Your task to perform on an android device: choose inbox layout in the gmail app Image 0: 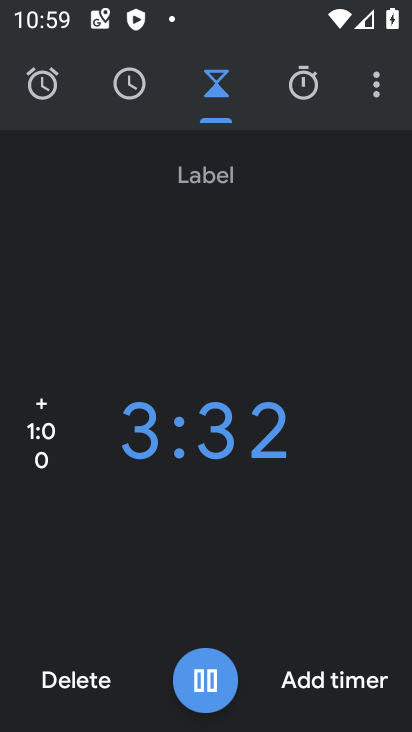
Step 0: press home button
Your task to perform on an android device: choose inbox layout in the gmail app Image 1: 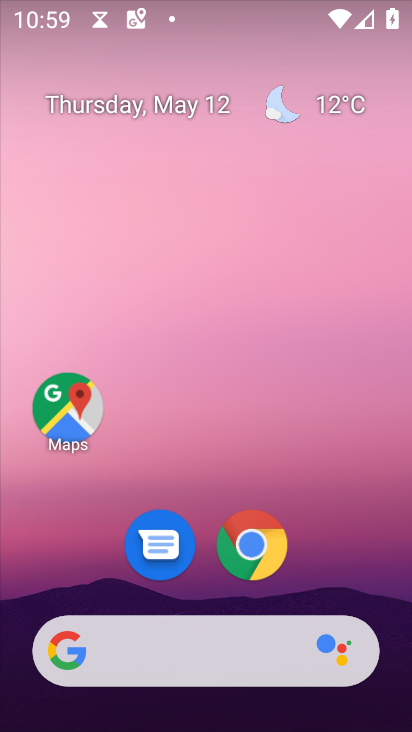
Step 1: drag from (205, 593) to (217, 51)
Your task to perform on an android device: choose inbox layout in the gmail app Image 2: 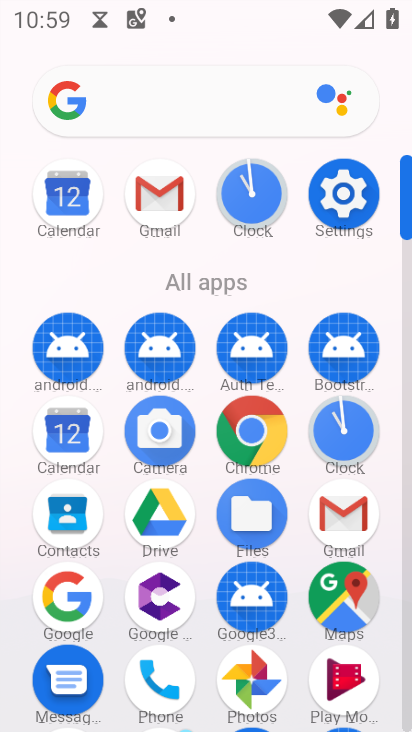
Step 2: click (153, 187)
Your task to perform on an android device: choose inbox layout in the gmail app Image 3: 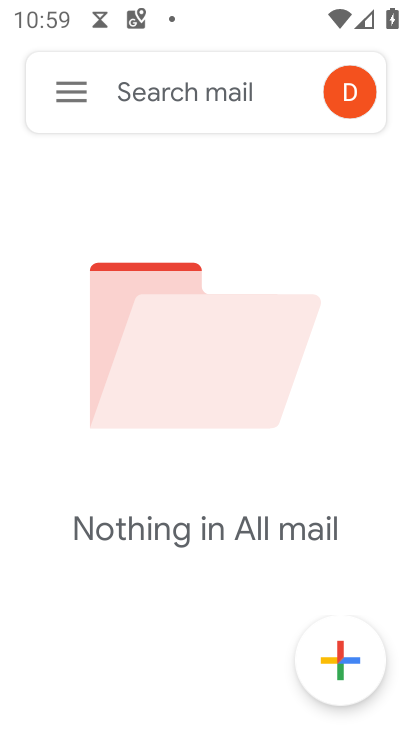
Step 3: click (63, 91)
Your task to perform on an android device: choose inbox layout in the gmail app Image 4: 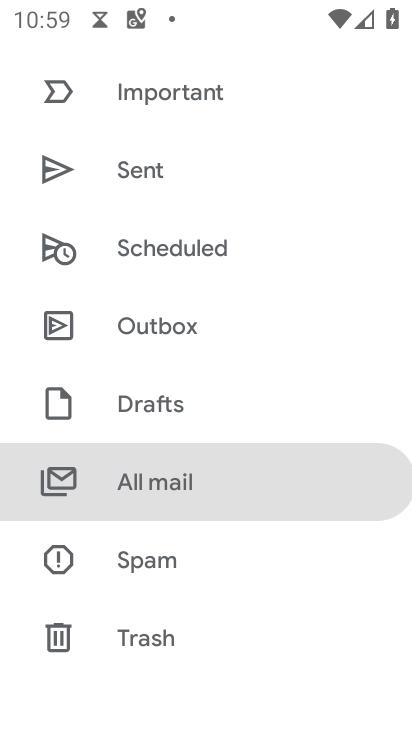
Step 4: drag from (192, 625) to (235, 47)
Your task to perform on an android device: choose inbox layout in the gmail app Image 5: 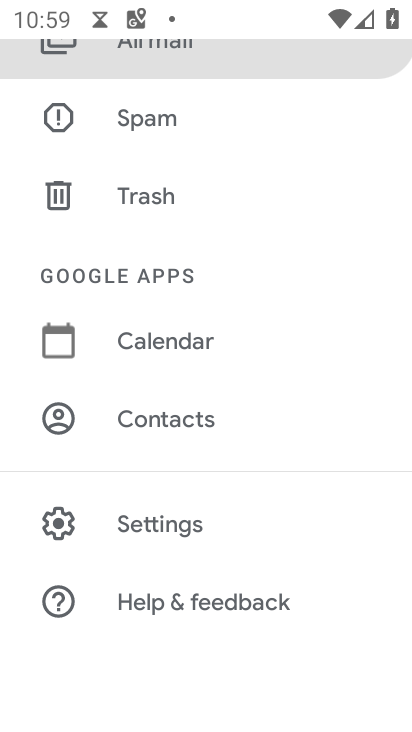
Step 5: click (91, 513)
Your task to perform on an android device: choose inbox layout in the gmail app Image 6: 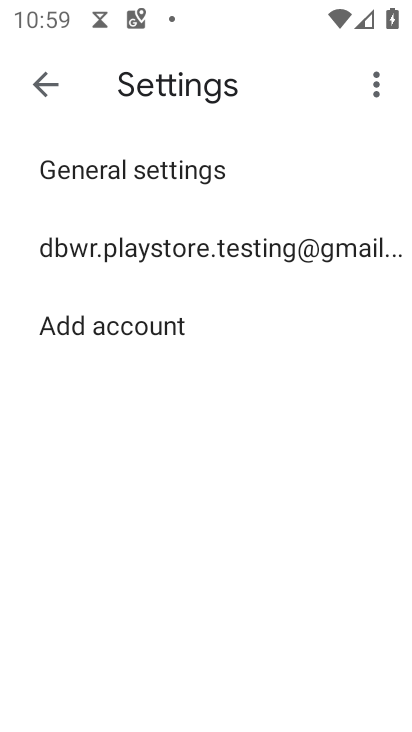
Step 6: click (136, 246)
Your task to perform on an android device: choose inbox layout in the gmail app Image 7: 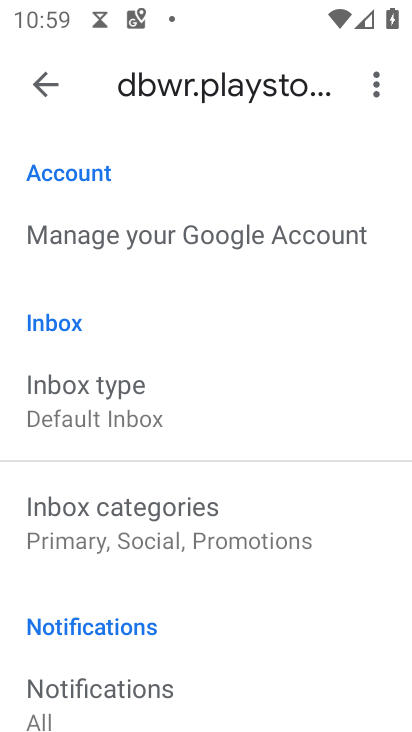
Step 7: click (200, 394)
Your task to perform on an android device: choose inbox layout in the gmail app Image 8: 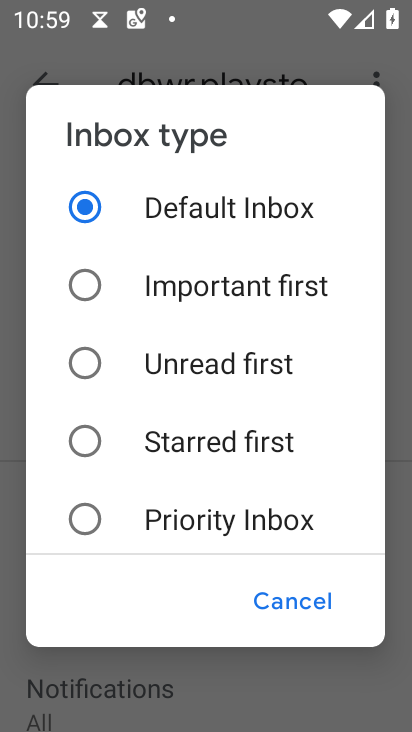
Step 8: click (83, 513)
Your task to perform on an android device: choose inbox layout in the gmail app Image 9: 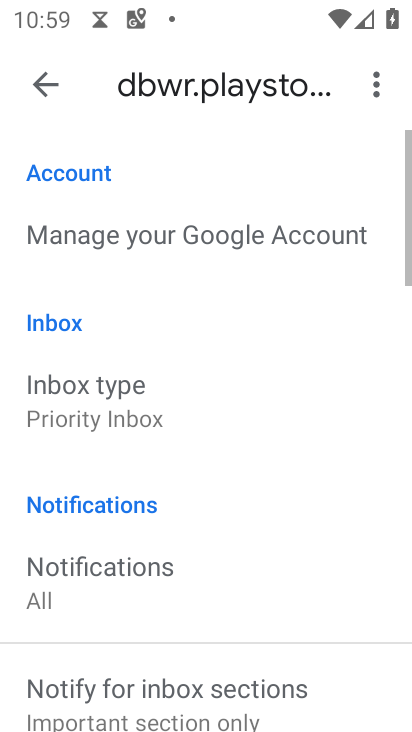
Step 9: task complete